Your task to perform on an android device: read, delete, or share a saved page in the chrome app Image 0: 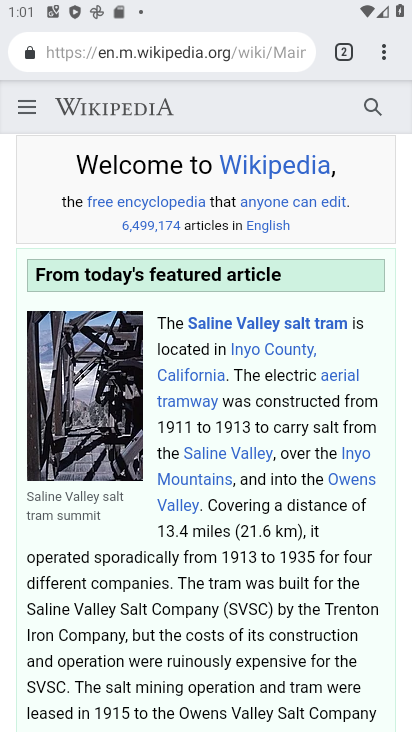
Step 0: drag from (346, 456) to (355, 146)
Your task to perform on an android device: read, delete, or share a saved page in the chrome app Image 1: 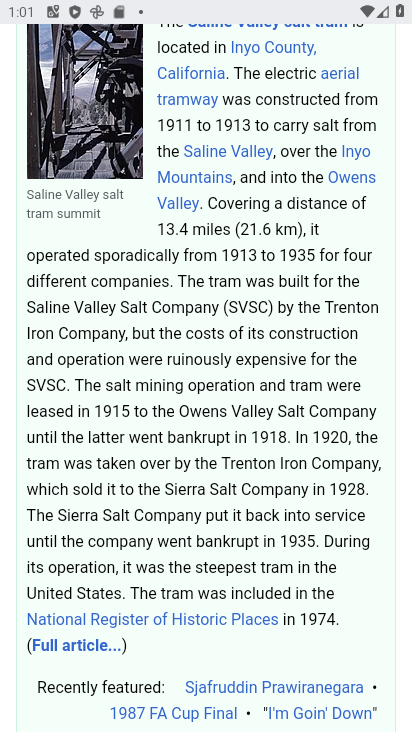
Step 1: task complete